Your task to perform on an android device: Play the last video I watched on Youtube Image 0: 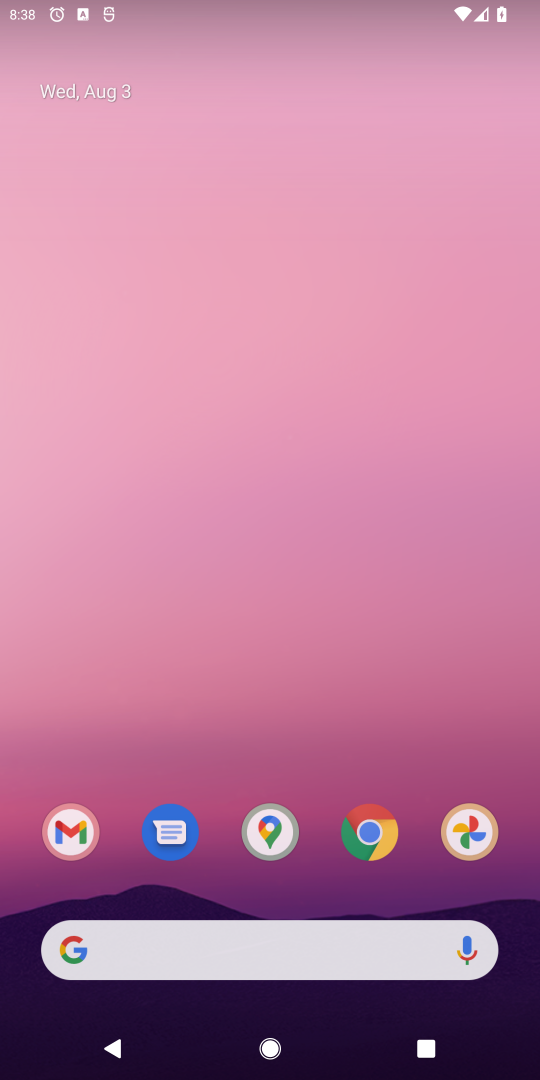
Step 0: press home button
Your task to perform on an android device: Play the last video I watched on Youtube Image 1: 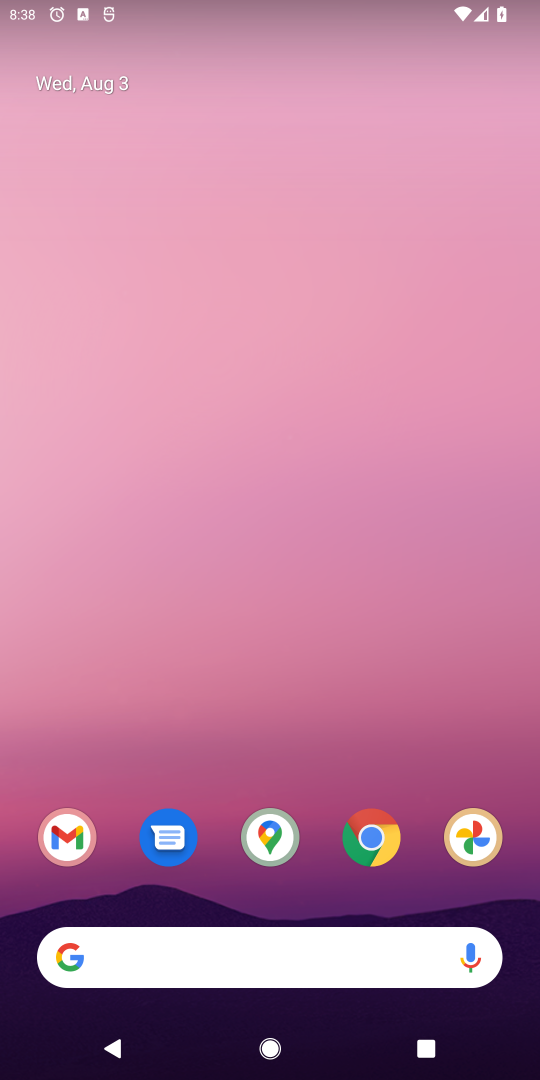
Step 1: drag from (316, 909) to (382, 319)
Your task to perform on an android device: Play the last video I watched on Youtube Image 2: 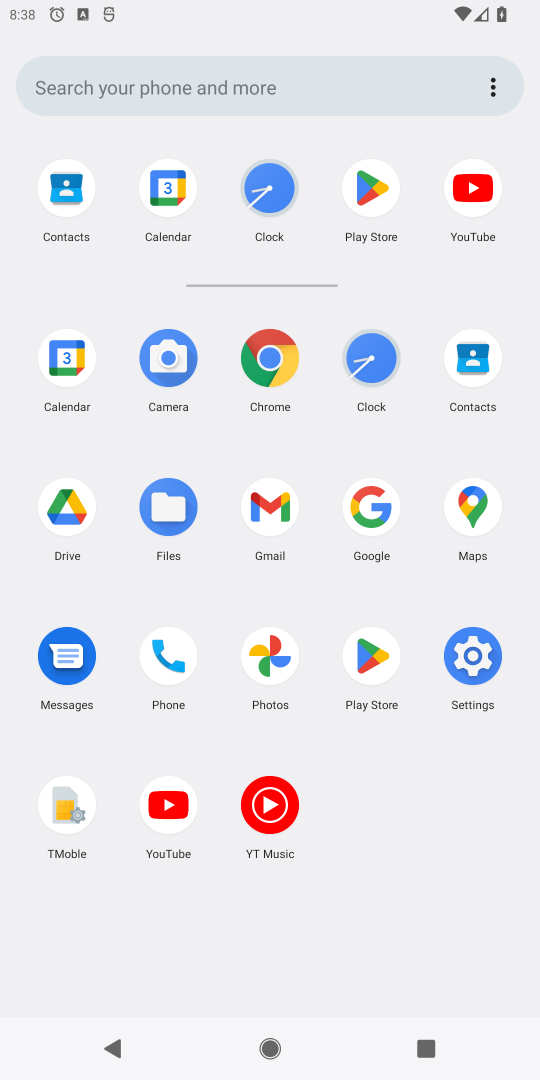
Step 2: click (184, 812)
Your task to perform on an android device: Play the last video I watched on Youtube Image 3: 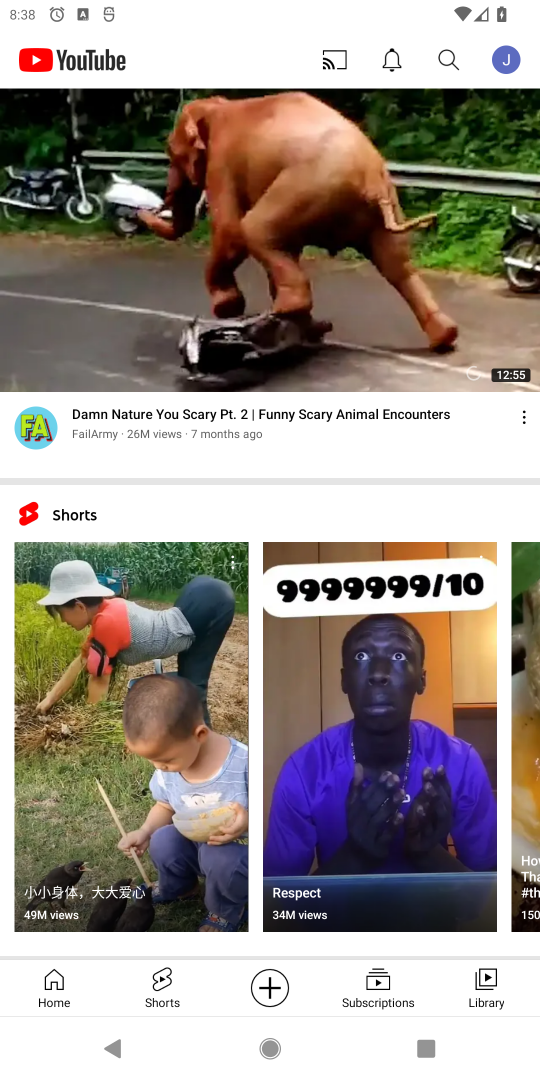
Step 3: click (490, 990)
Your task to perform on an android device: Play the last video I watched on Youtube Image 4: 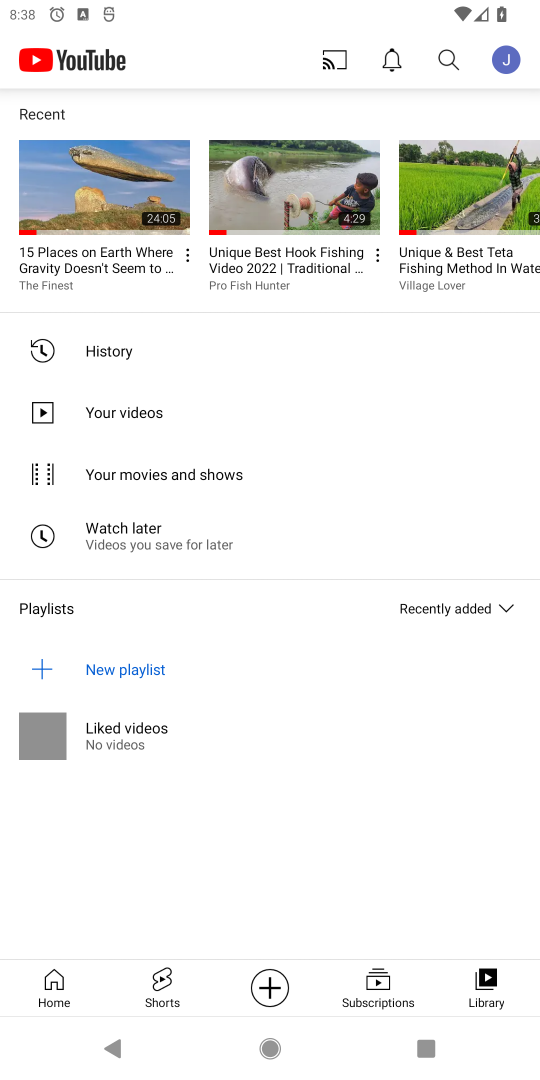
Step 4: click (129, 213)
Your task to perform on an android device: Play the last video I watched on Youtube Image 5: 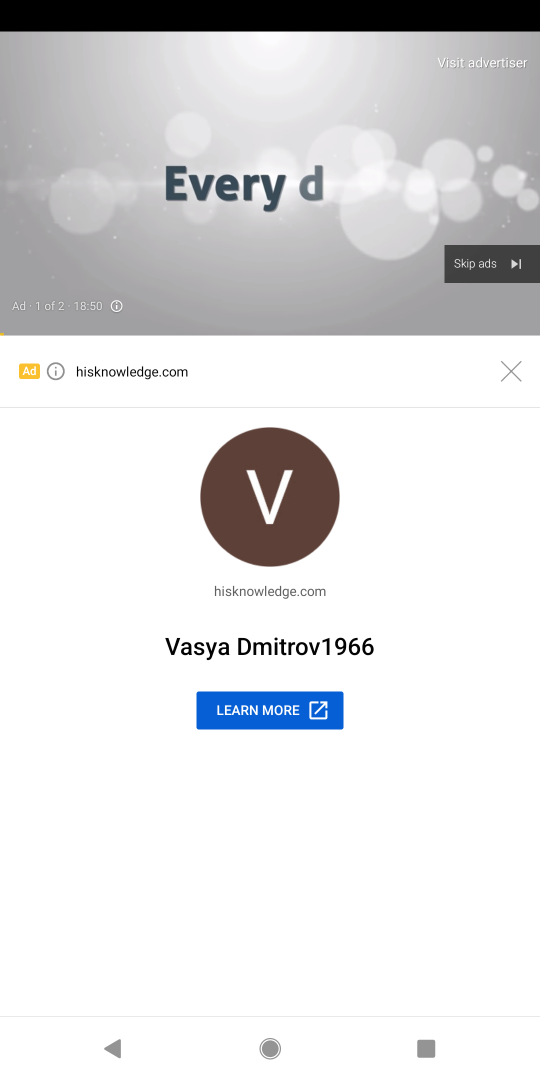
Step 5: click (485, 260)
Your task to perform on an android device: Play the last video I watched on Youtube Image 6: 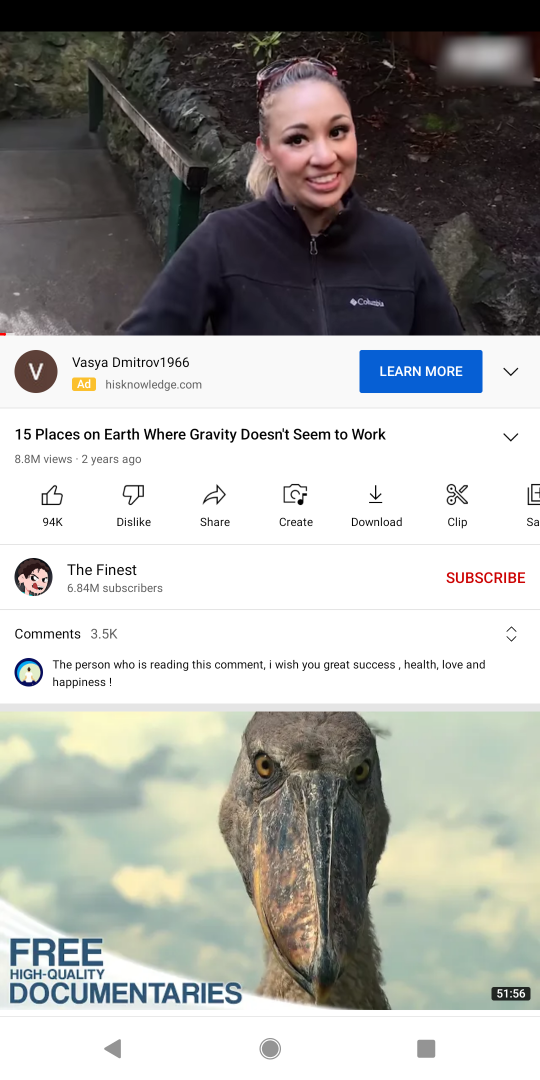
Step 6: task complete